Your task to perform on an android device: Check the news Image 0: 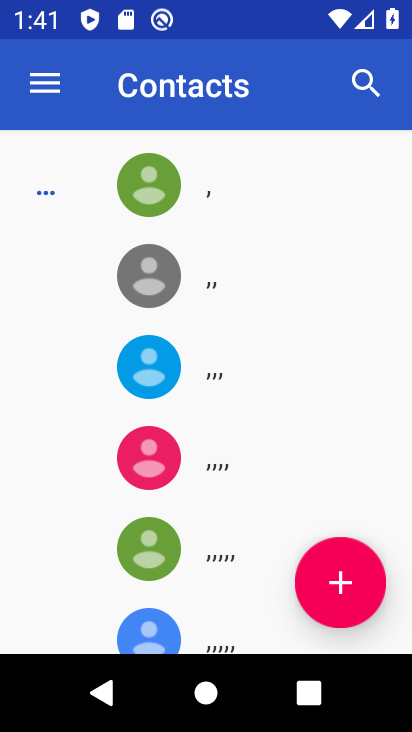
Step 0: press home button
Your task to perform on an android device: Check the news Image 1: 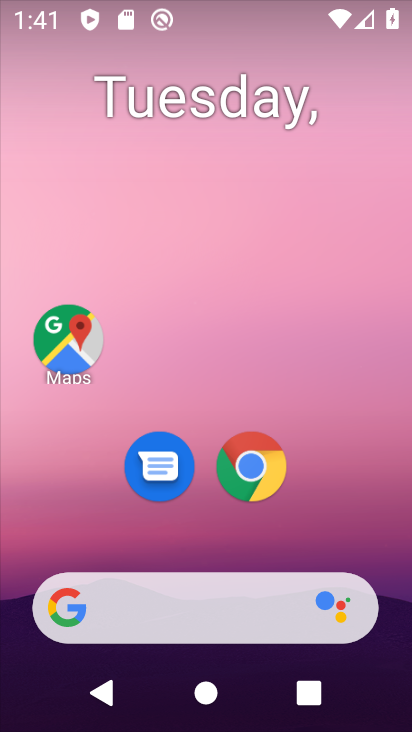
Step 1: click (174, 606)
Your task to perform on an android device: Check the news Image 2: 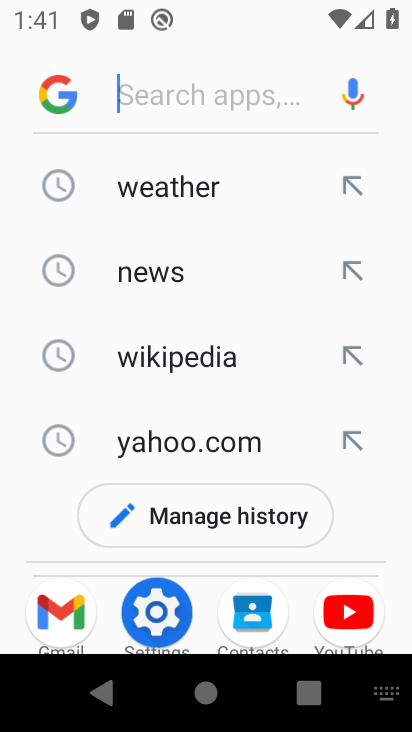
Step 2: click (179, 271)
Your task to perform on an android device: Check the news Image 3: 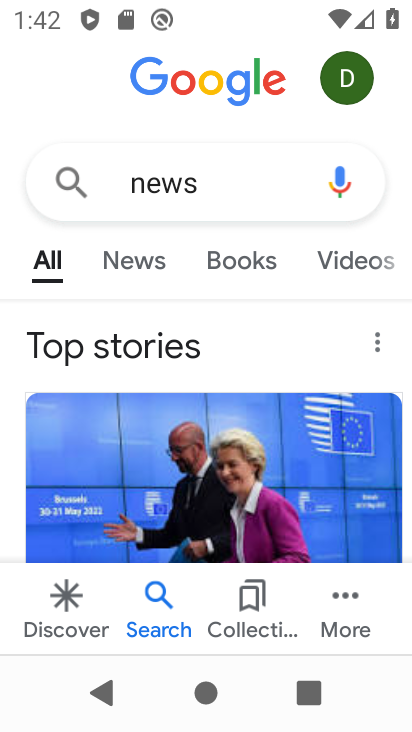
Step 3: task complete